Your task to perform on an android device: Go to Yahoo.com Image 0: 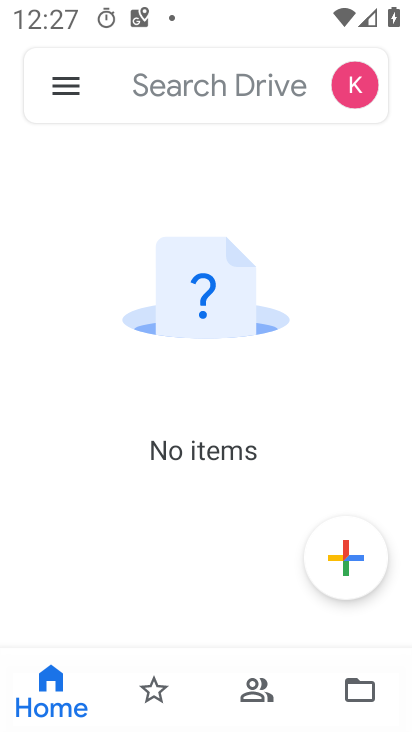
Step 0: press home button
Your task to perform on an android device: Go to Yahoo.com Image 1: 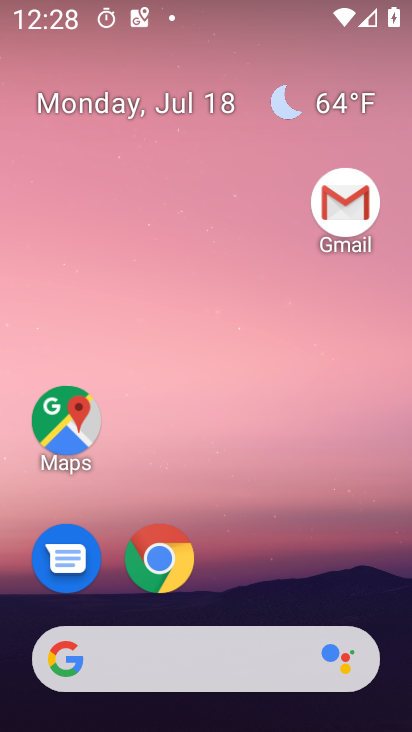
Step 1: drag from (329, 587) to (361, 59)
Your task to perform on an android device: Go to Yahoo.com Image 2: 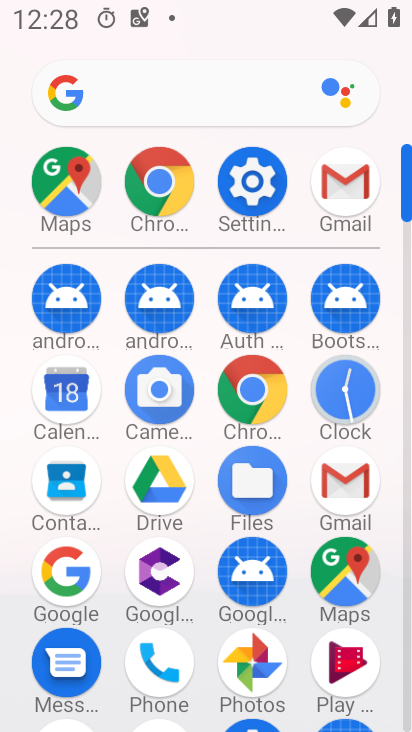
Step 2: click (230, 400)
Your task to perform on an android device: Go to Yahoo.com Image 3: 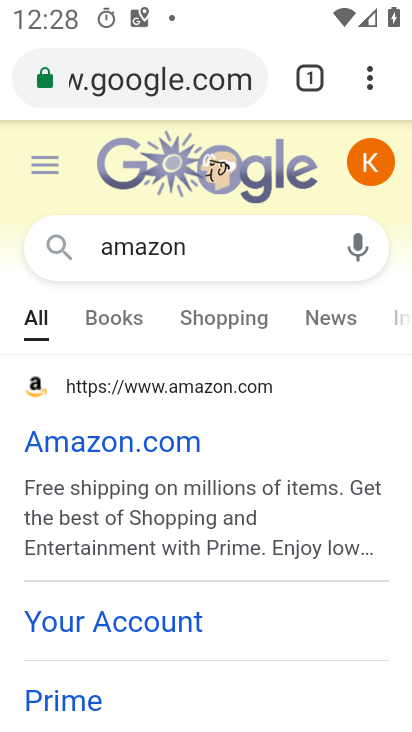
Step 3: click (207, 88)
Your task to perform on an android device: Go to Yahoo.com Image 4: 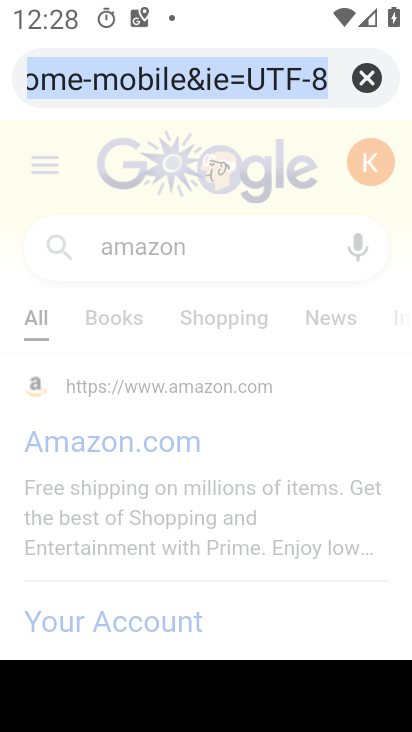
Step 4: type "yahoo.com"
Your task to perform on an android device: Go to Yahoo.com Image 5: 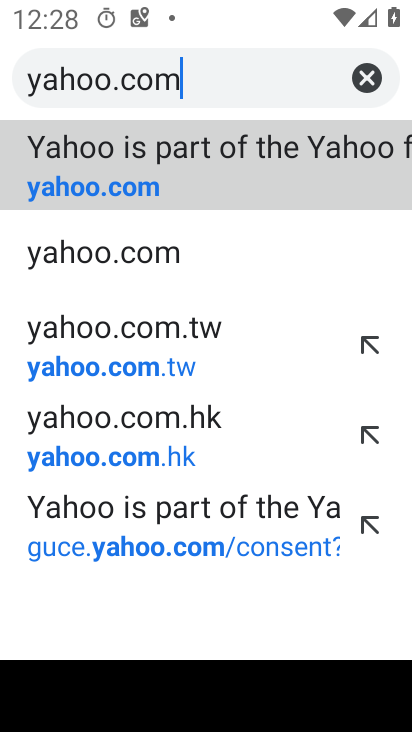
Step 5: click (159, 252)
Your task to perform on an android device: Go to Yahoo.com Image 6: 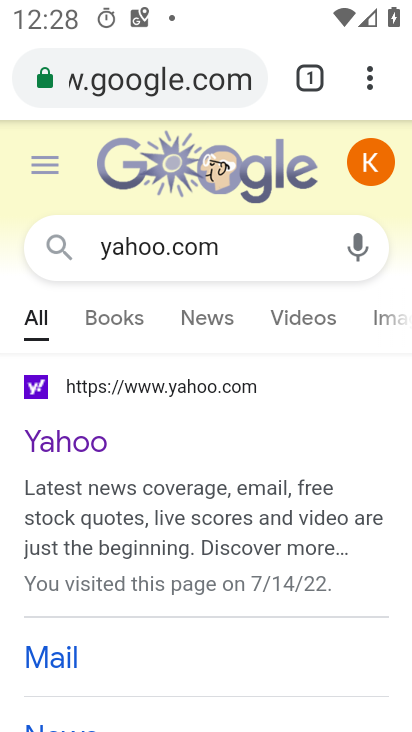
Step 6: task complete